Your task to perform on an android device: Open network settings Image 0: 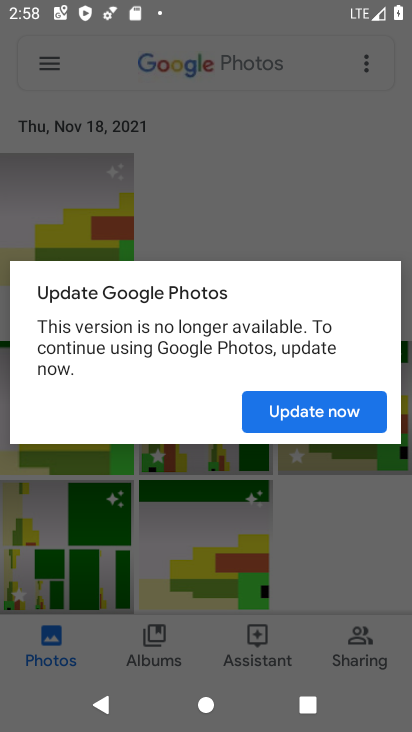
Step 0: press home button
Your task to perform on an android device: Open network settings Image 1: 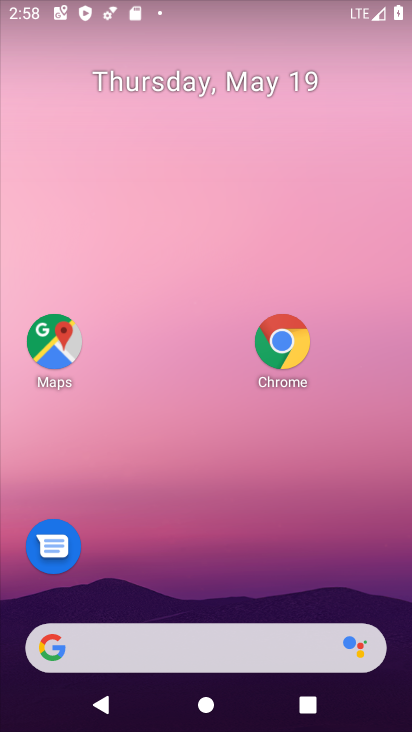
Step 1: drag from (165, 649) to (308, 103)
Your task to perform on an android device: Open network settings Image 2: 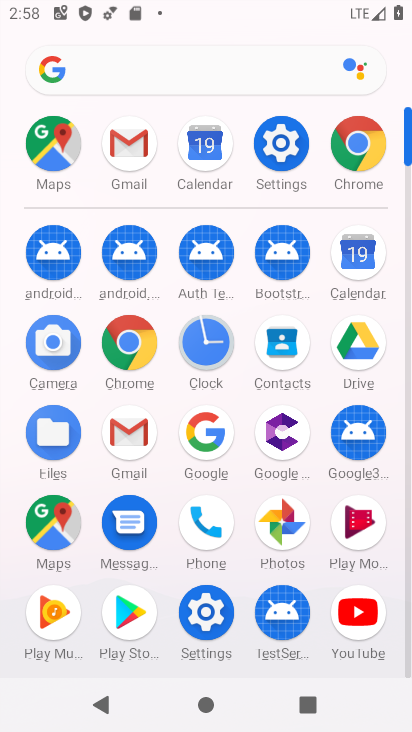
Step 2: click (268, 154)
Your task to perform on an android device: Open network settings Image 3: 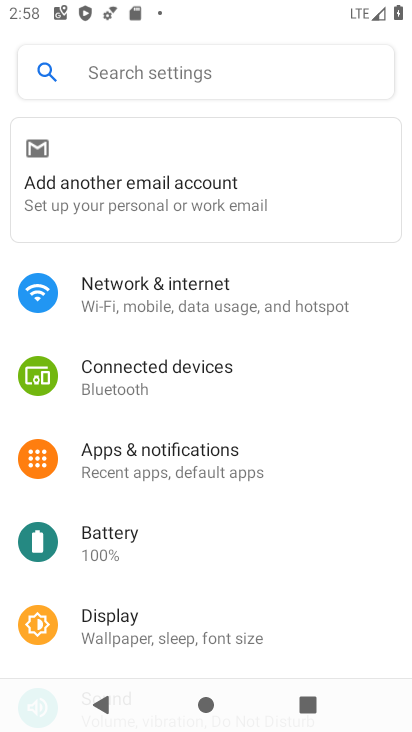
Step 3: click (206, 282)
Your task to perform on an android device: Open network settings Image 4: 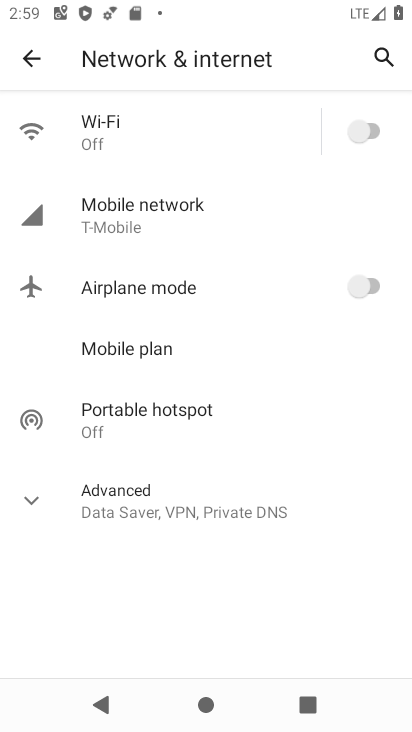
Step 4: task complete